Your task to perform on an android device: move an email to a new category in the gmail app Image 0: 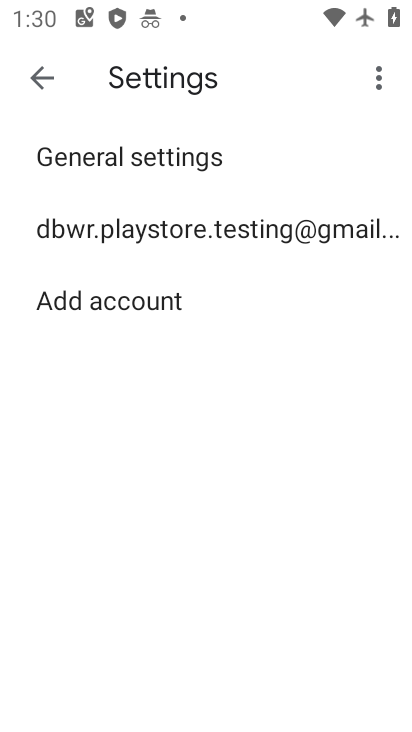
Step 0: press home button
Your task to perform on an android device: move an email to a new category in the gmail app Image 1: 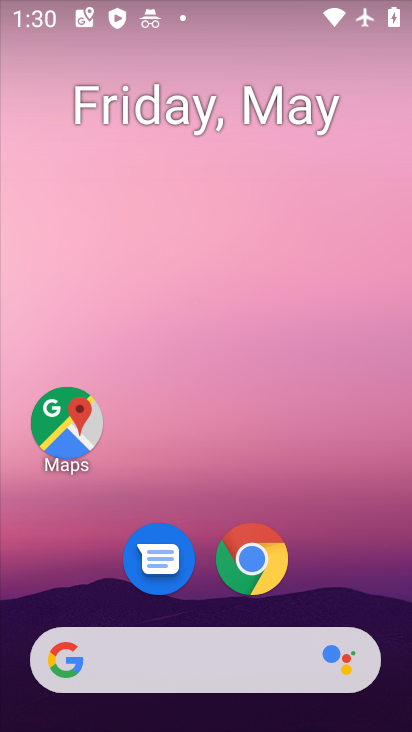
Step 1: drag from (312, 540) to (189, 118)
Your task to perform on an android device: move an email to a new category in the gmail app Image 2: 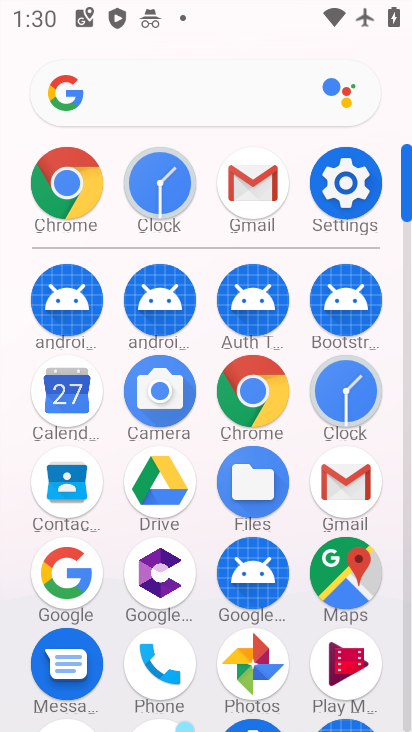
Step 2: click (239, 197)
Your task to perform on an android device: move an email to a new category in the gmail app Image 3: 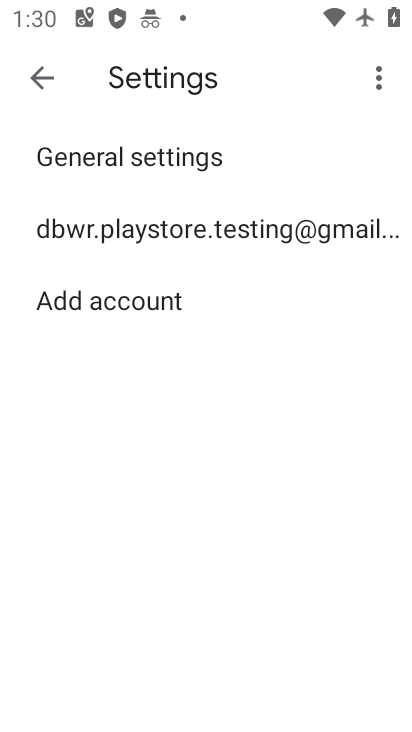
Step 3: click (45, 61)
Your task to perform on an android device: move an email to a new category in the gmail app Image 4: 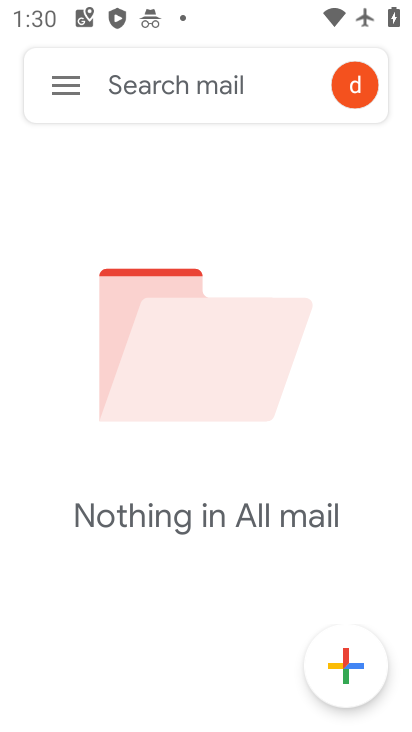
Step 4: click (46, 62)
Your task to perform on an android device: move an email to a new category in the gmail app Image 5: 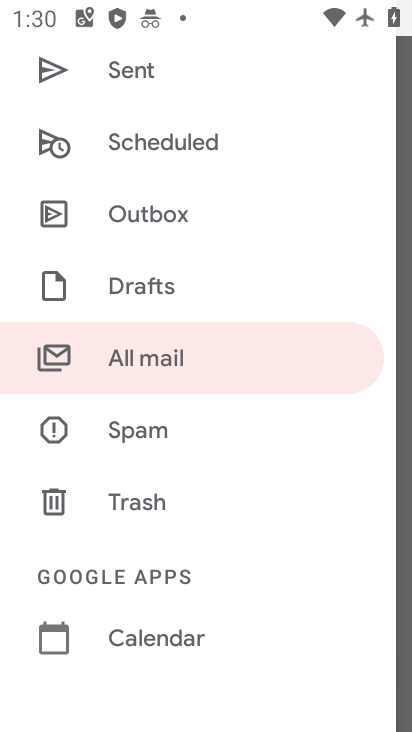
Step 5: click (140, 367)
Your task to perform on an android device: move an email to a new category in the gmail app Image 6: 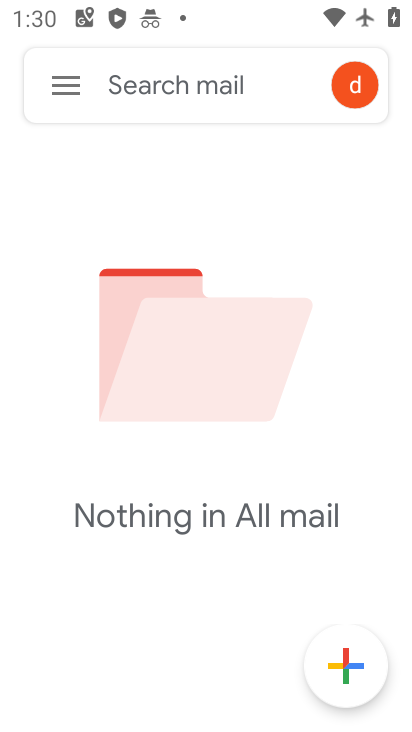
Step 6: task complete